Your task to perform on an android device: turn smart compose on in the gmail app Image 0: 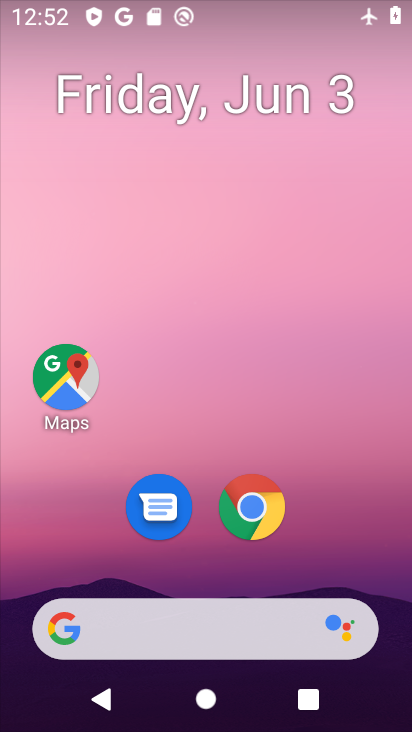
Step 0: drag from (325, 536) to (335, 171)
Your task to perform on an android device: turn smart compose on in the gmail app Image 1: 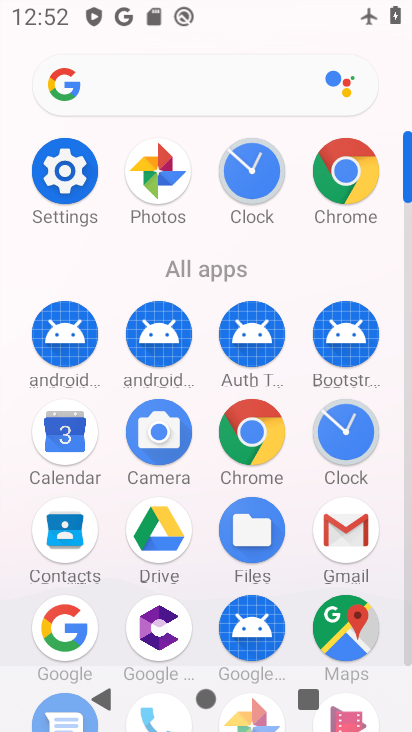
Step 1: click (334, 511)
Your task to perform on an android device: turn smart compose on in the gmail app Image 2: 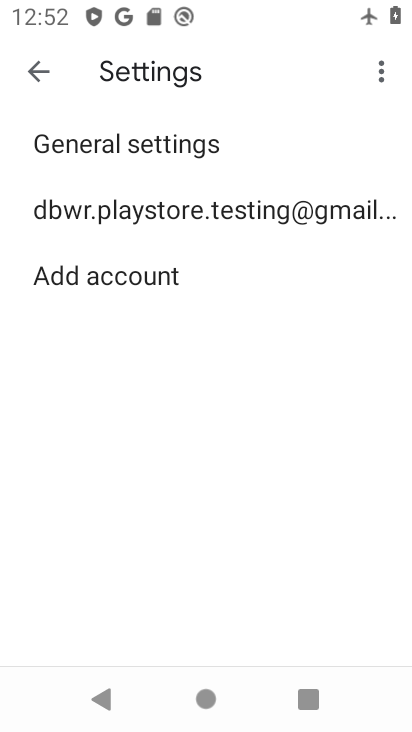
Step 2: click (321, 209)
Your task to perform on an android device: turn smart compose on in the gmail app Image 3: 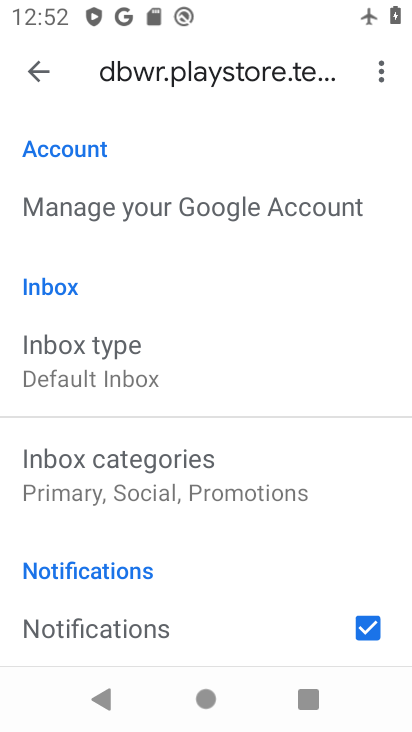
Step 3: task complete